Your task to perform on an android device: Search for Italian restaurants on Maps Image 0: 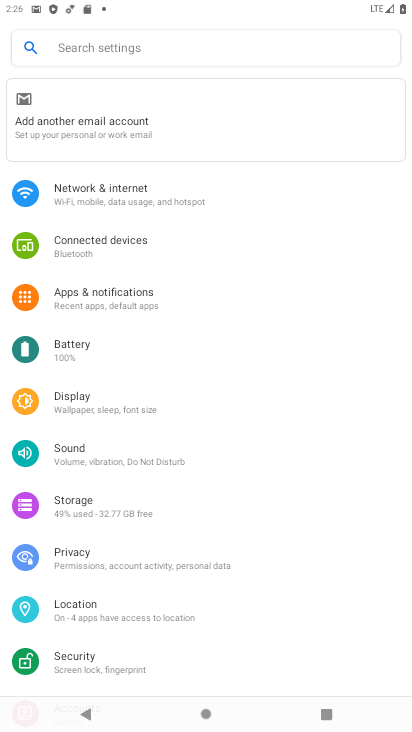
Step 0: press back button
Your task to perform on an android device: Search for Italian restaurants on Maps Image 1: 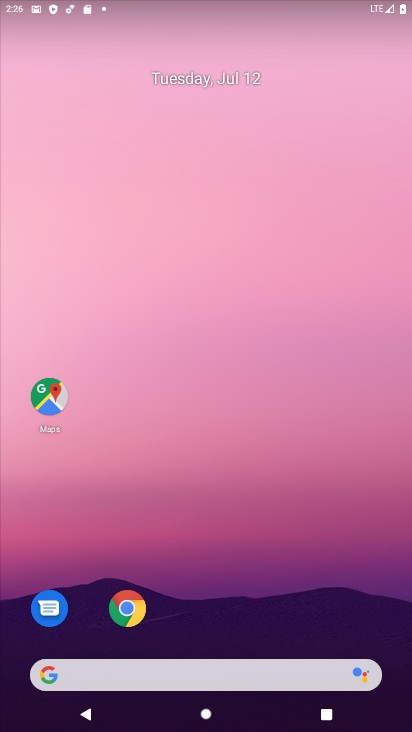
Step 1: click (50, 389)
Your task to perform on an android device: Search for Italian restaurants on Maps Image 2: 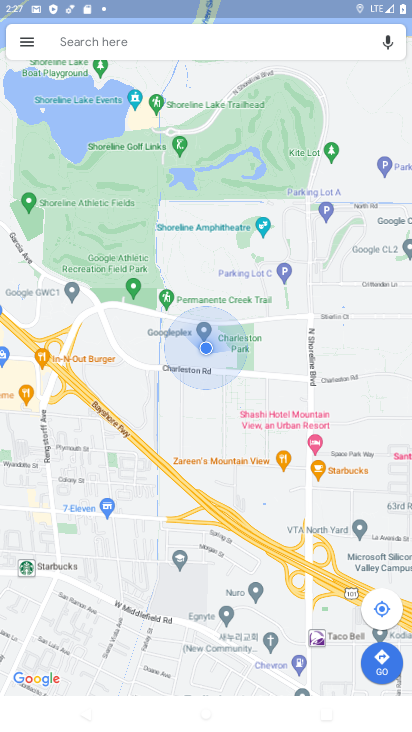
Step 2: press home button
Your task to perform on an android device: Search for Italian restaurants on Maps Image 3: 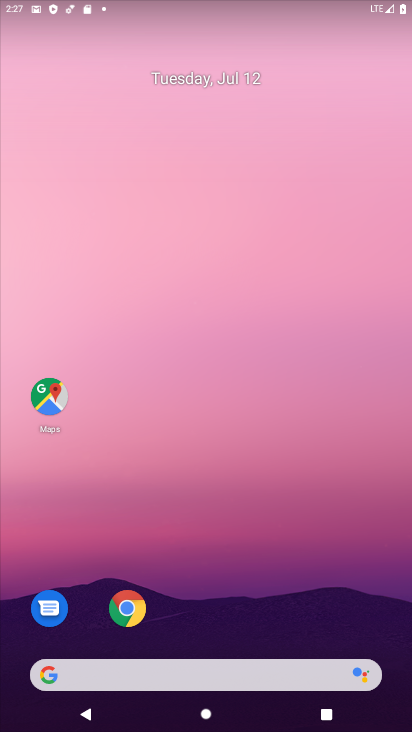
Step 3: click (57, 394)
Your task to perform on an android device: Search for Italian restaurants on Maps Image 4: 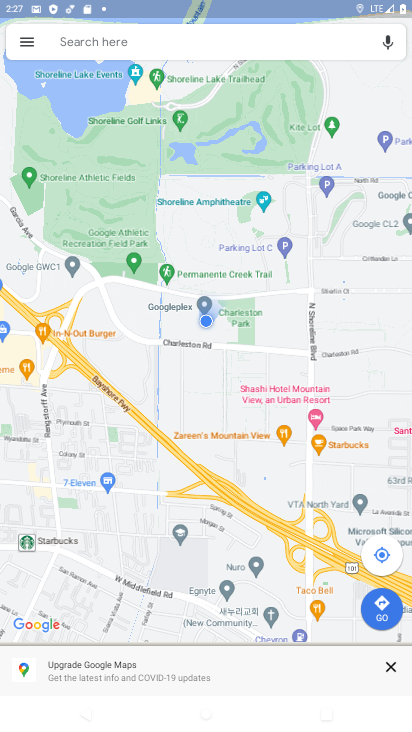
Step 4: type "Italian restaurants"
Your task to perform on an android device: Search for Italian restaurants on Maps Image 5: 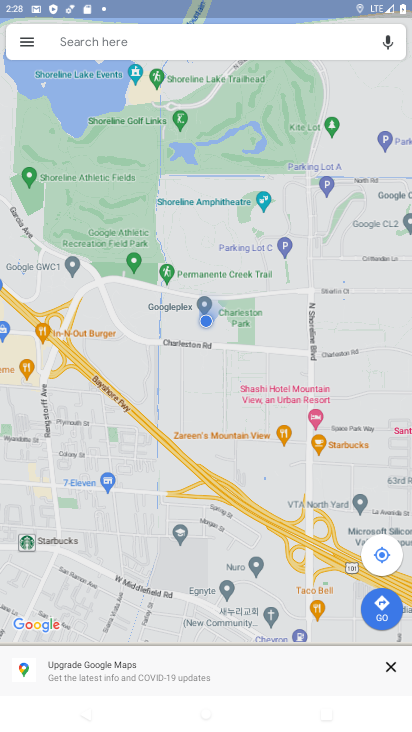
Step 5: click (170, 40)
Your task to perform on an android device: Search for Italian restaurants on Maps Image 6: 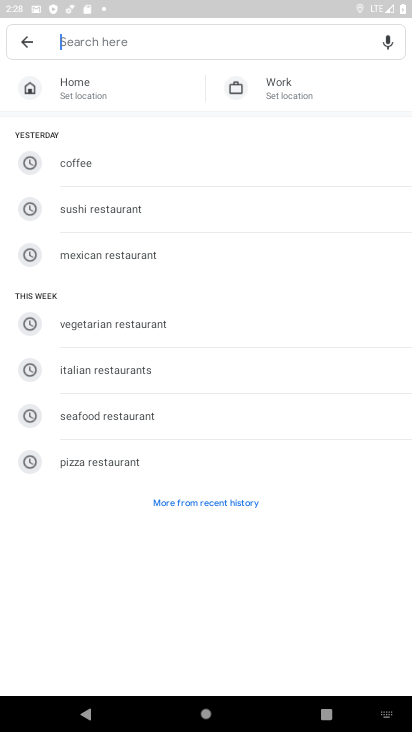
Step 6: click (128, 371)
Your task to perform on an android device: Search for Italian restaurants on Maps Image 7: 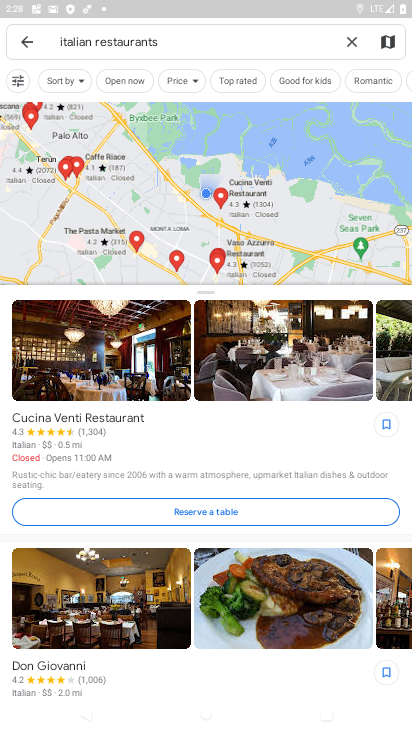
Step 7: task complete